Your task to perform on an android device: Do I have any events tomorrow? Image 0: 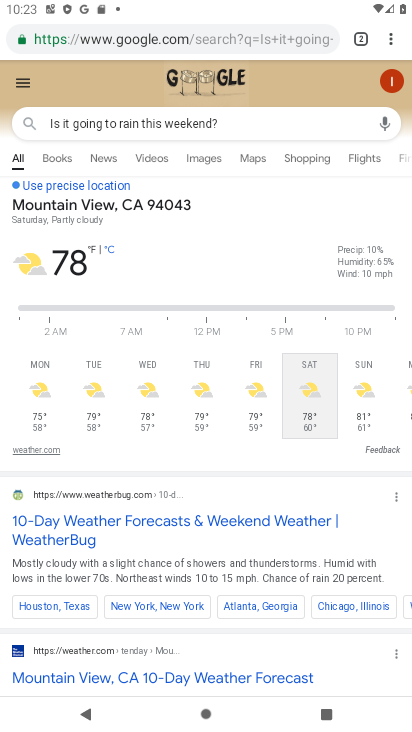
Step 0: press home button
Your task to perform on an android device: Do I have any events tomorrow? Image 1: 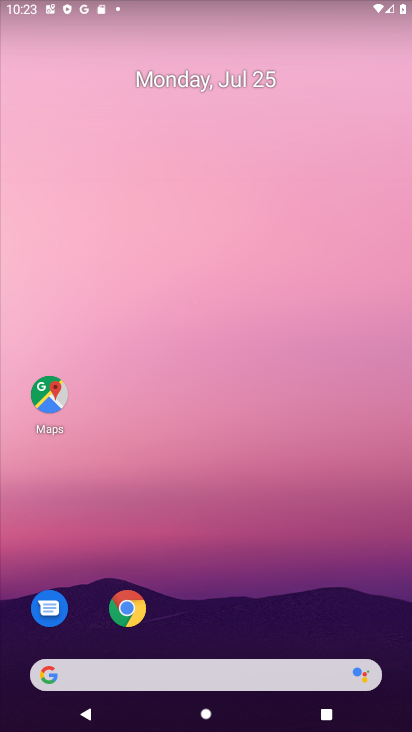
Step 1: drag from (229, 630) to (234, 208)
Your task to perform on an android device: Do I have any events tomorrow? Image 2: 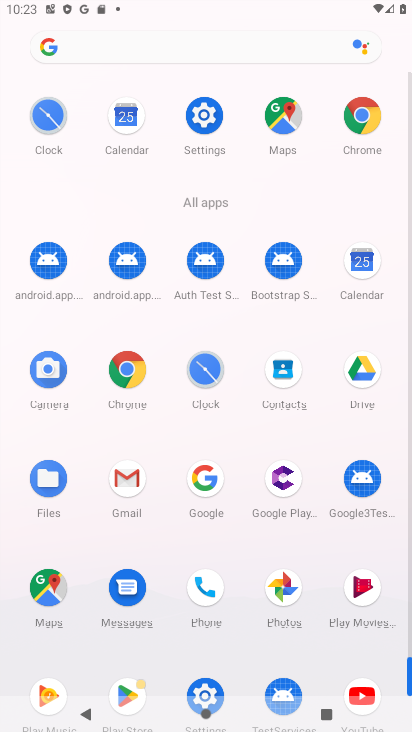
Step 2: click (367, 244)
Your task to perform on an android device: Do I have any events tomorrow? Image 3: 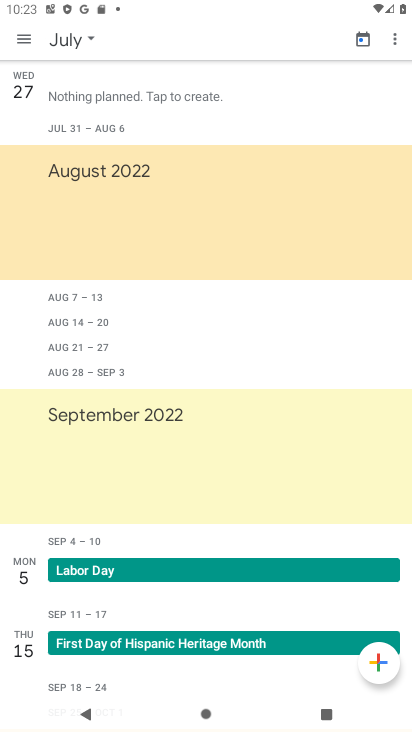
Step 3: click (21, 40)
Your task to perform on an android device: Do I have any events tomorrow? Image 4: 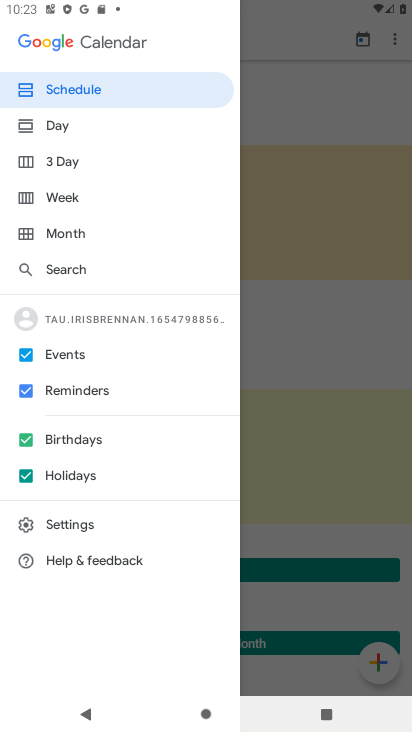
Step 4: click (370, 225)
Your task to perform on an android device: Do I have any events tomorrow? Image 5: 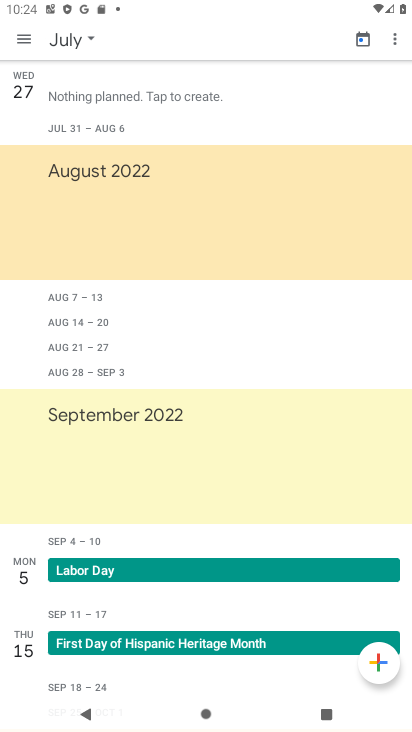
Step 5: task complete